Your task to perform on an android device: turn off smart reply in the gmail app Image 0: 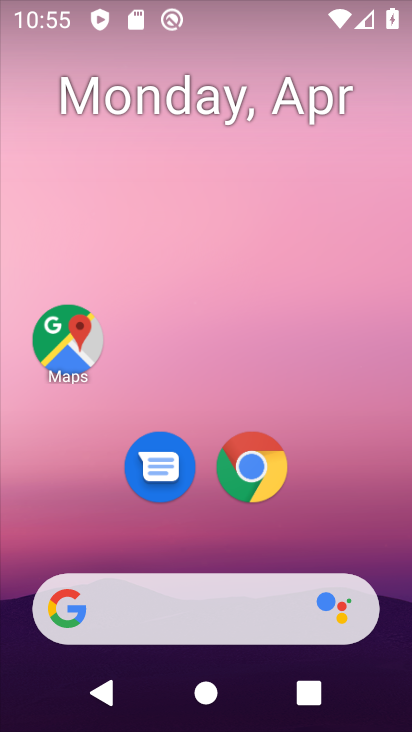
Step 0: press home button
Your task to perform on an android device: turn off smart reply in the gmail app Image 1: 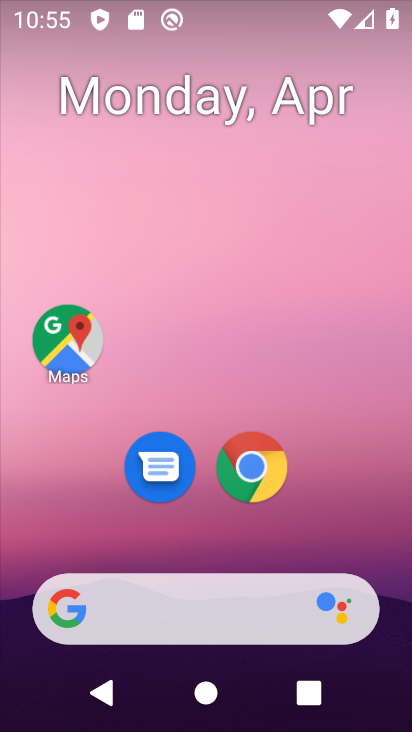
Step 1: drag from (217, 460) to (266, 44)
Your task to perform on an android device: turn off smart reply in the gmail app Image 2: 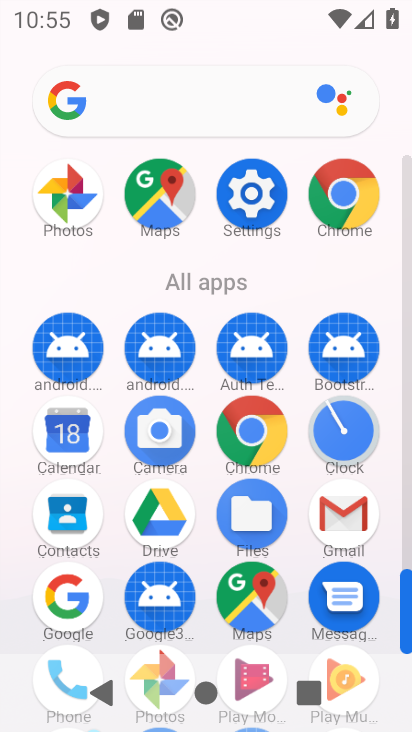
Step 2: click (342, 511)
Your task to perform on an android device: turn off smart reply in the gmail app Image 3: 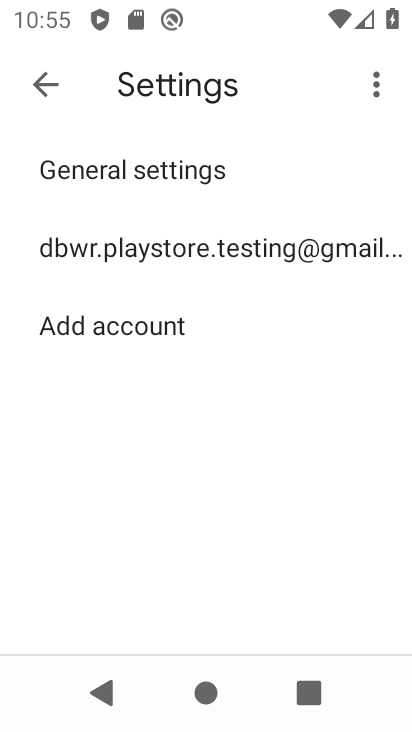
Step 3: click (169, 234)
Your task to perform on an android device: turn off smart reply in the gmail app Image 4: 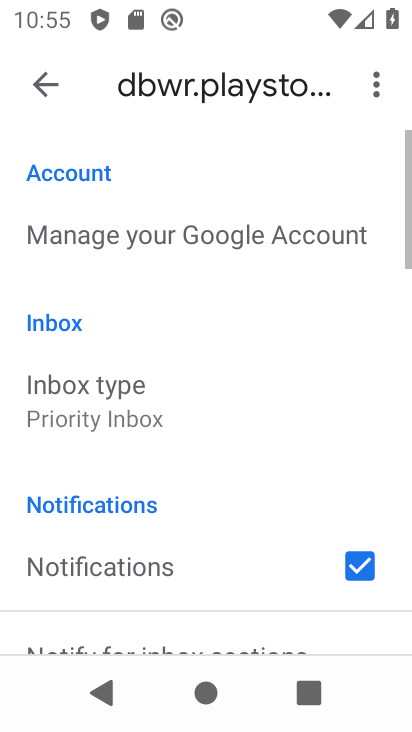
Step 4: drag from (265, 509) to (278, 83)
Your task to perform on an android device: turn off smart reply in the gmail app Image 5: 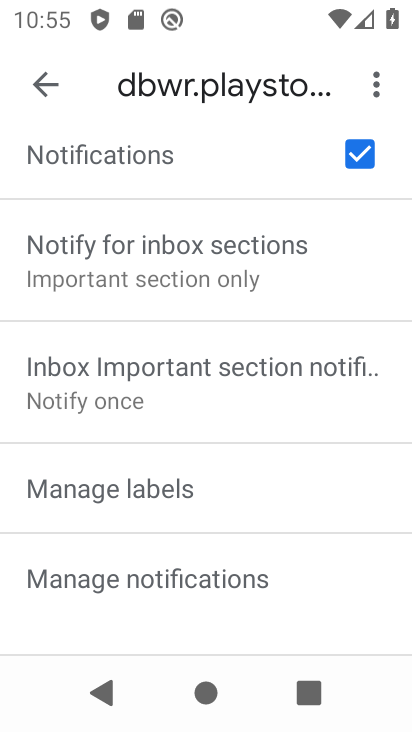
Step 5: drag from (218, 534) to (253, 80)
Your task to perform on an android device: turn off smart reply in the gmail app Image 6: 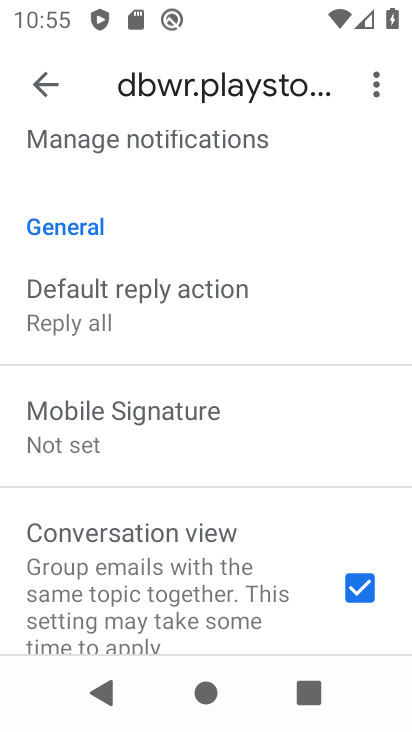
Step 6: drag from (208, 549) to (228, 106)
Your task to perform on an android device: turn off smart reply in the gmail app Image 7: 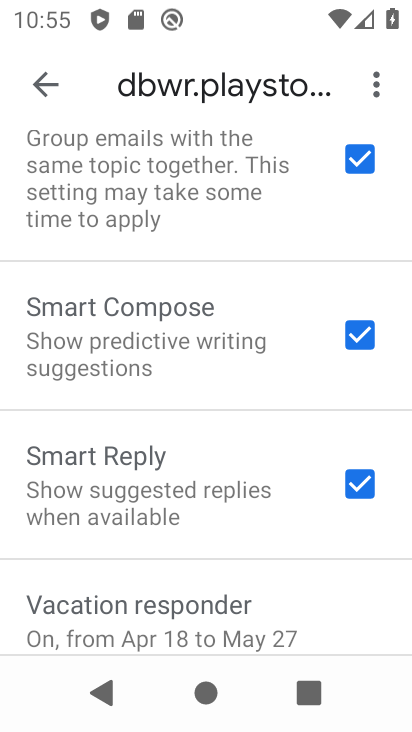
Step 7: click (344, 485)
Your task to perform on an android device: turn off smart reply in the gmail app Image 8: 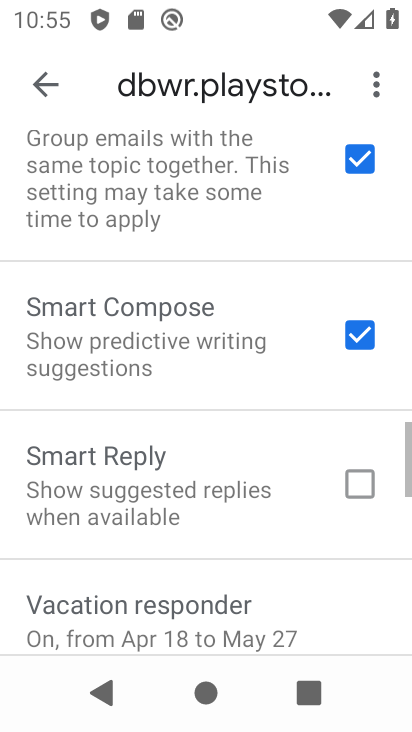
Step 8: task complete